Your task to perform on an android device: turn pop-ups on in chrome Image 0: 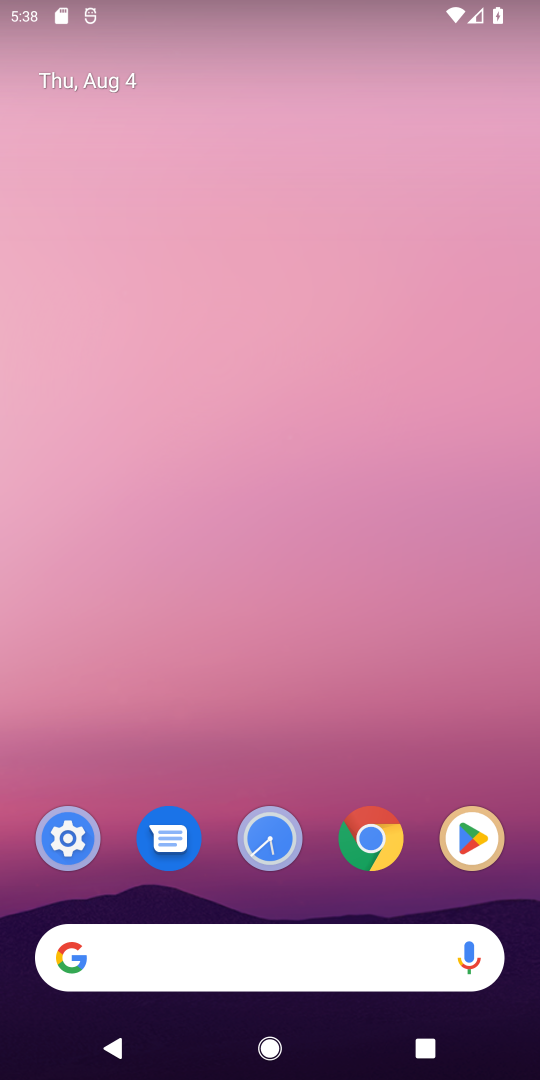
Step 0: press home button
Your task to perform on an android device: turn pop-ups on in chrome Image 1: 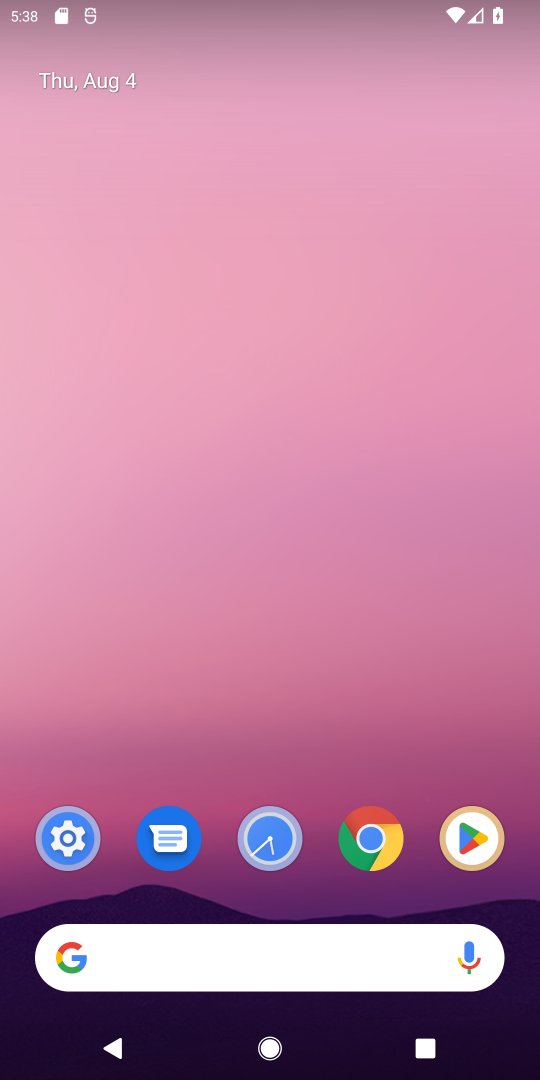
Step 1: press home button
Your task to perform on an android device: turn pop-ups on in chrome Image 2: 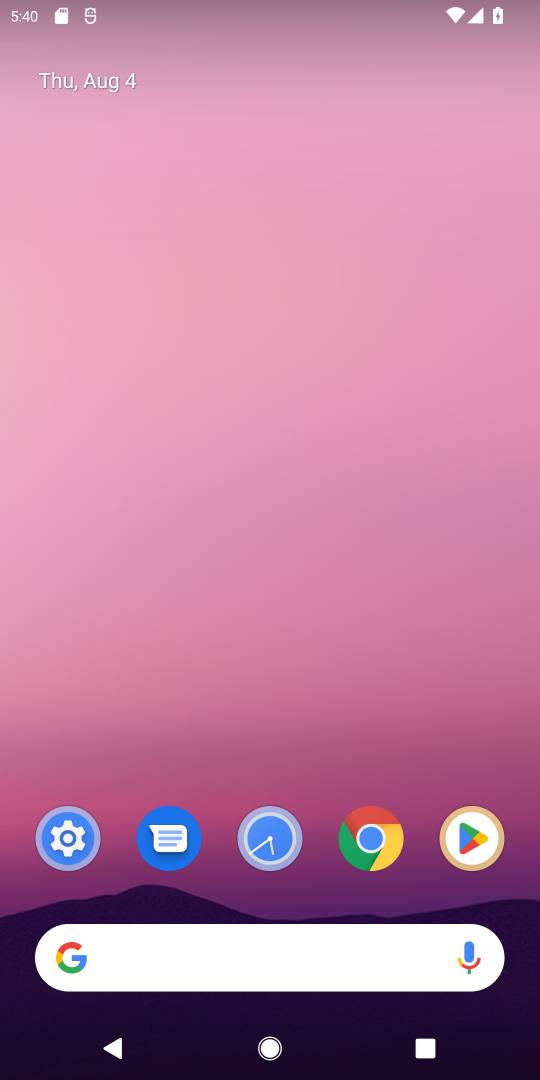
Step 2: click (388, 851)
Your task to perform on an android device: turn pop-ups on in chrome Image 3: 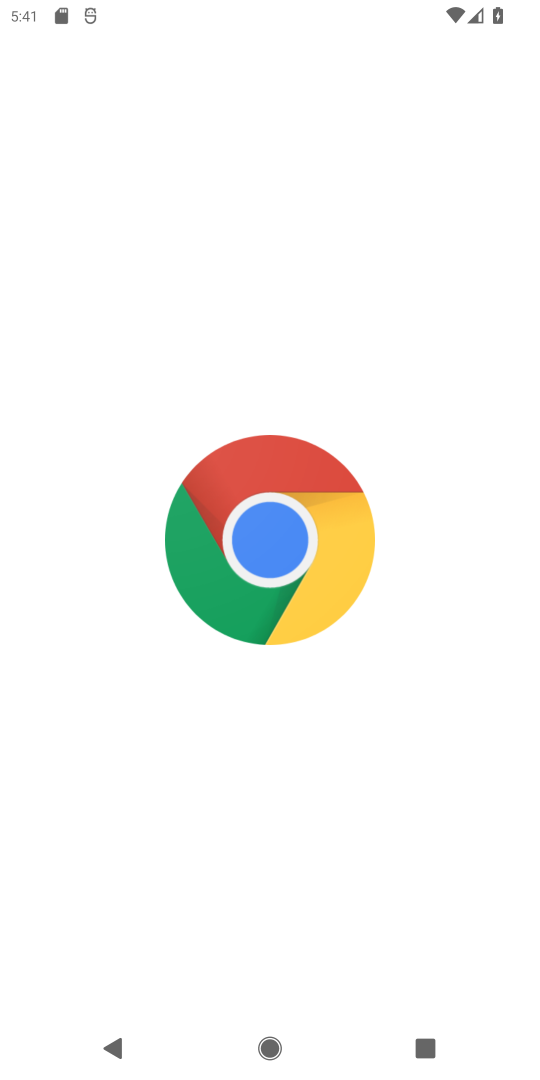
Step 3: click (317, 606)
Your task to perform on an android device: turn pop-ups on in chrome Image 4: 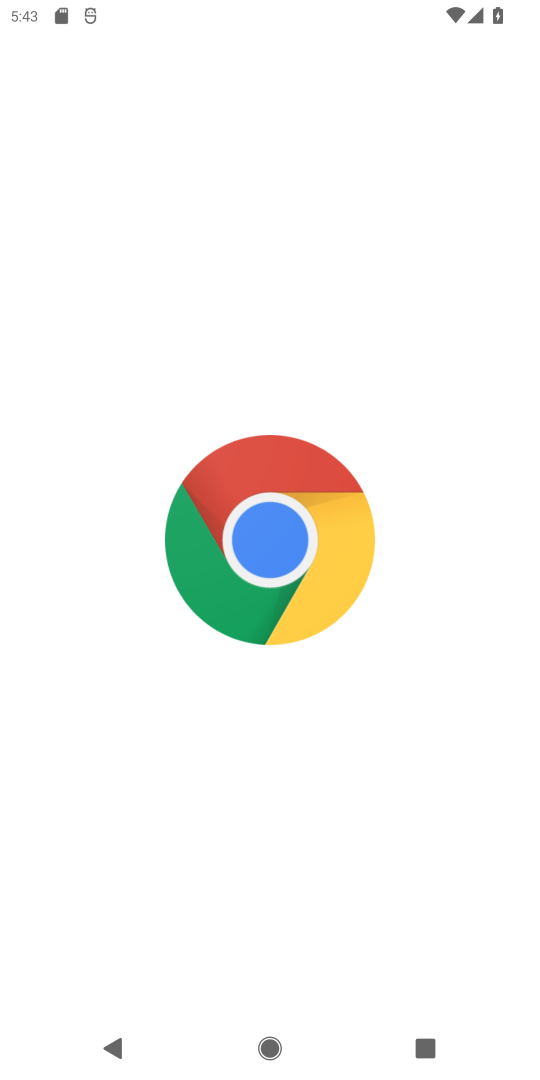
Step 4: task complete